Your task to perform on an android device: turn on airplane mode Image 0: 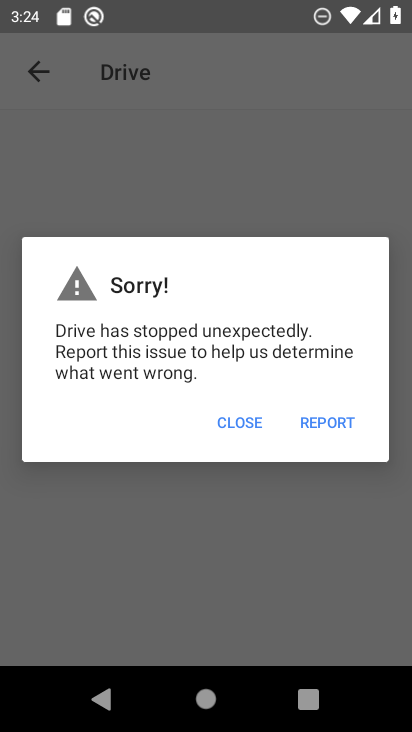
Step 0: press home button
Your task to perform on an android device: turn on airplane mode Image 1: 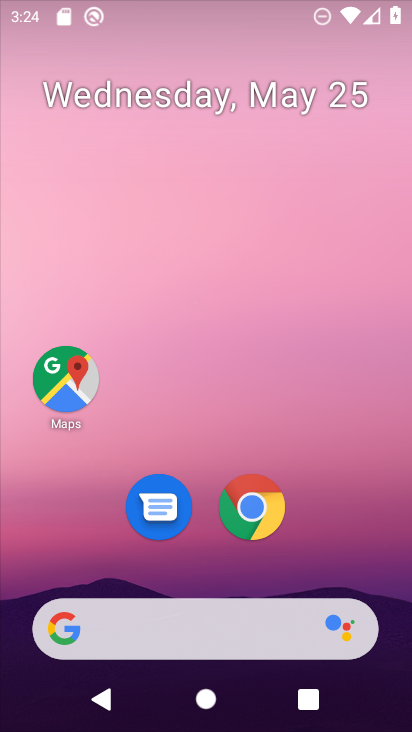
Step 1: drag from (206, 642) to (306, 211)
Your task to perform on an android device: turn on airplane mode Image 2: 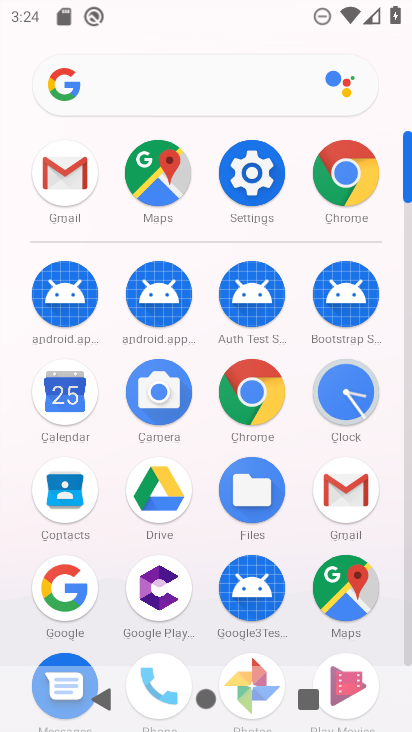
Step 2: drag from (225, 531) to (291, 265)
Your task to perform on an android device: turn on airplane mode Image 3: 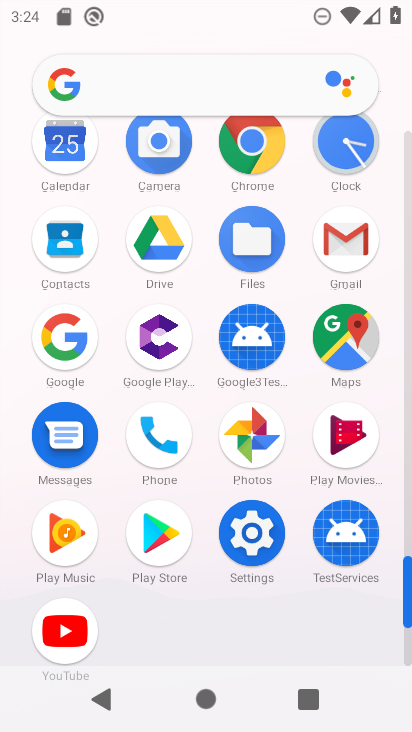
Step 3: click (262, 547)
Your task to perform on an android device: turn on airplane mode Image 4: 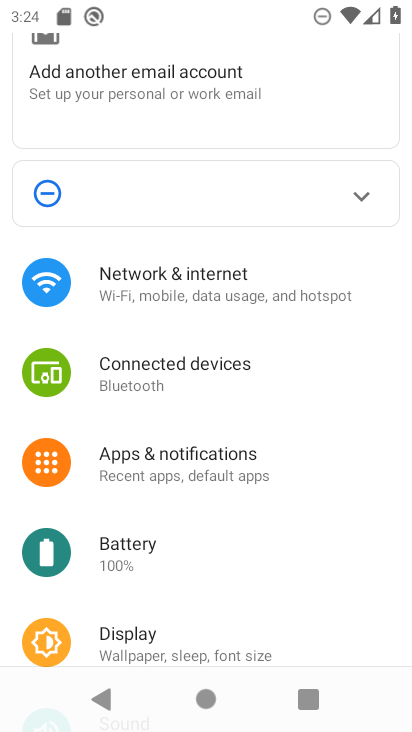
Step 4: click (258, 300)
Your task to perform on an android device: turn on airplane mode Image 5: 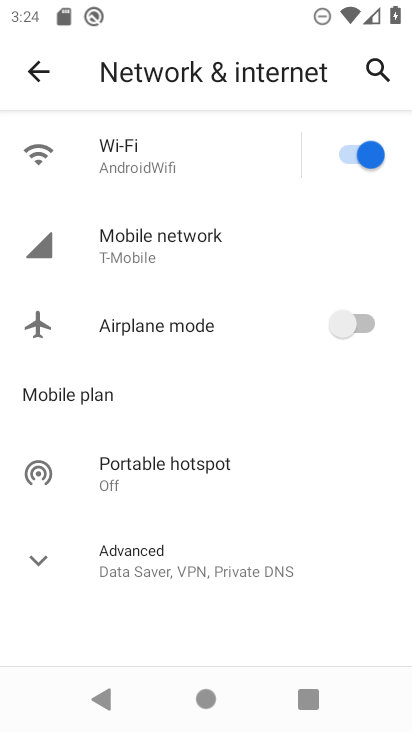
Step 5: click (239, 328)
Your task to perform on an android device: turn on airplane mode Image 6: 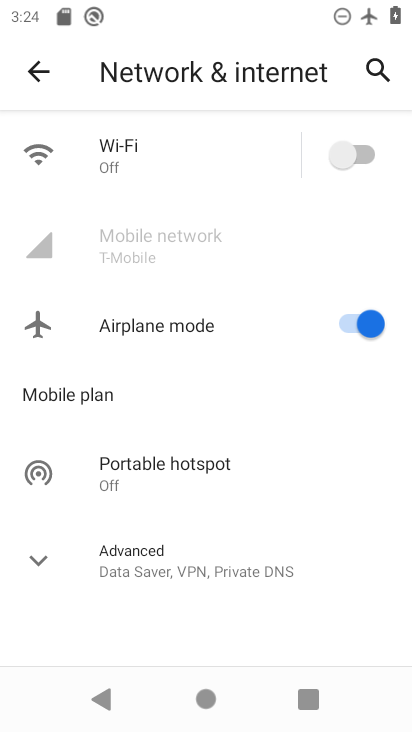
Step 6: task complete